Your task to perform on an android device: make emails show in primary in the gmail app Image 0: 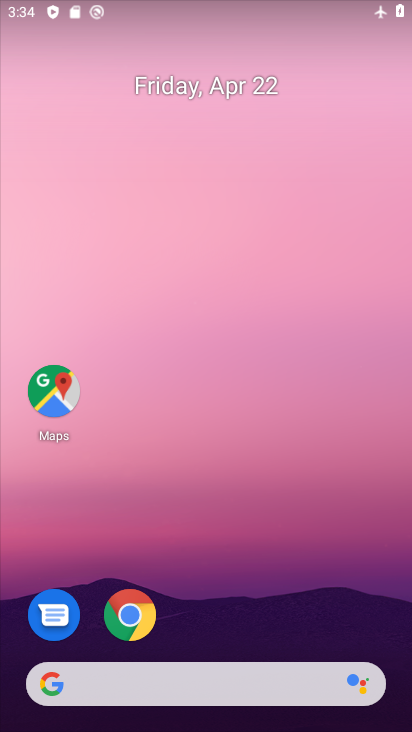
Step 0: drag from (209, 655) to (292, 187)
Your task to perform on an android device: make emails show in primary in the gmail app Image 1: 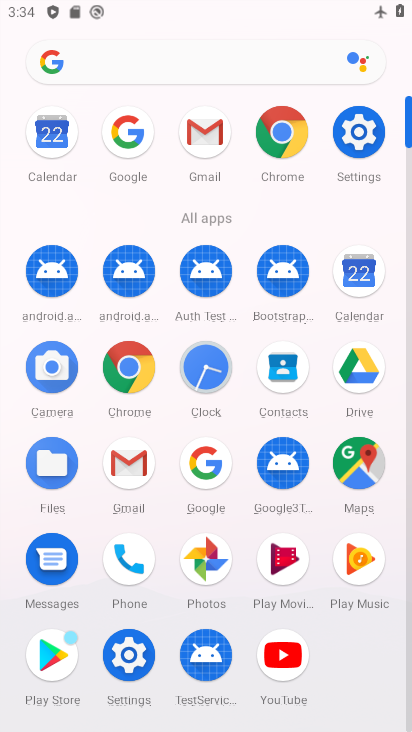
Step 1: click (202, 135)
Your task to perform on an android device: make emails show in primary in the gmail app Image 2: 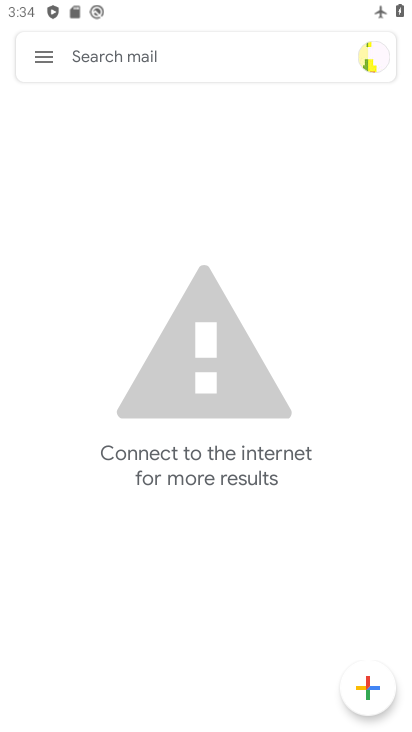
Step 2: click (49, 49)
Your task to perform on an android device: make emails show in primary in the gmail app Image 3: 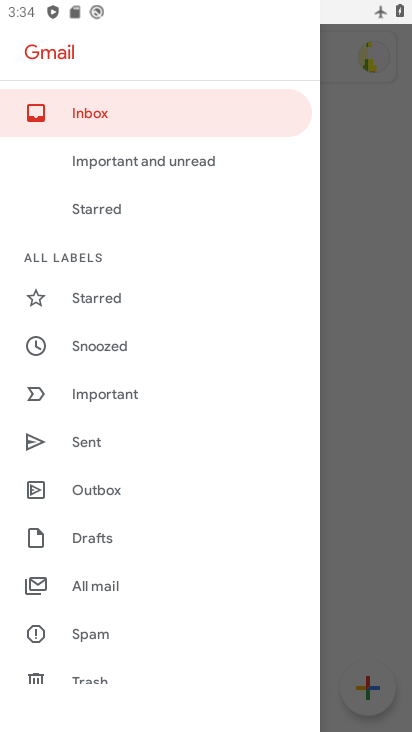
Step 3: drag from (103, 655) to (131, 371)
Your task to perform on an android device: make emails show in primary in the gmail app Image 4: 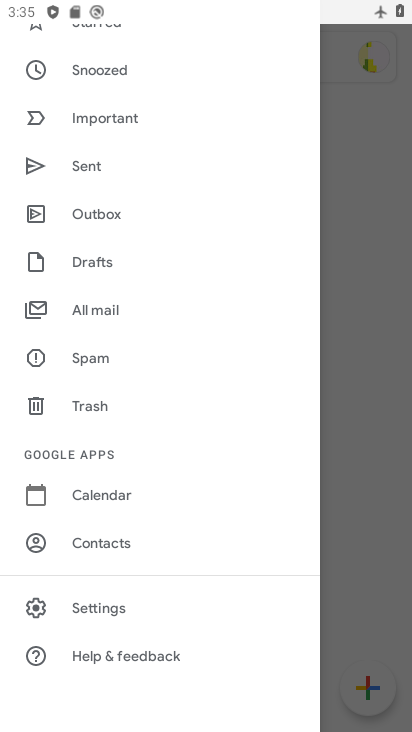
Step 4: click (94, 604)
Your task to perform on an android device: make emails show in primary in the gmail app Image 5: 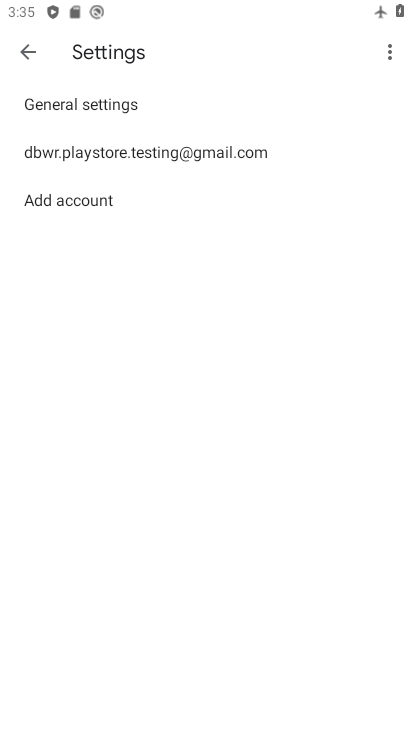
Step 5: click (146, 154)
Your task to perform on an android device: make emails show in primary in the gmail app Image 6: 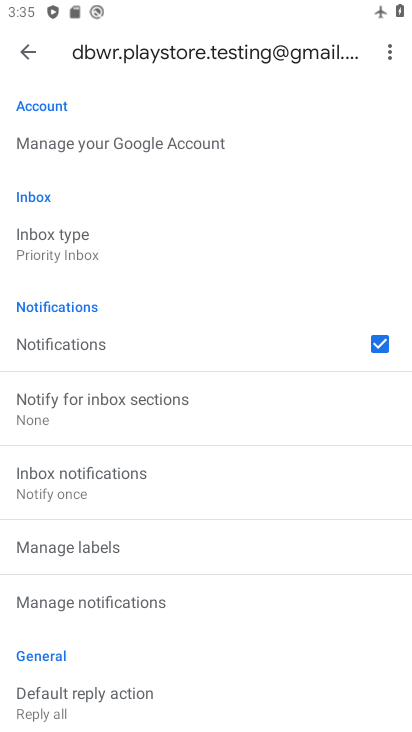
Step 6: click (63, 242)
Your task to perform on an android device: make emails show in primary in the gmail app Image 7: 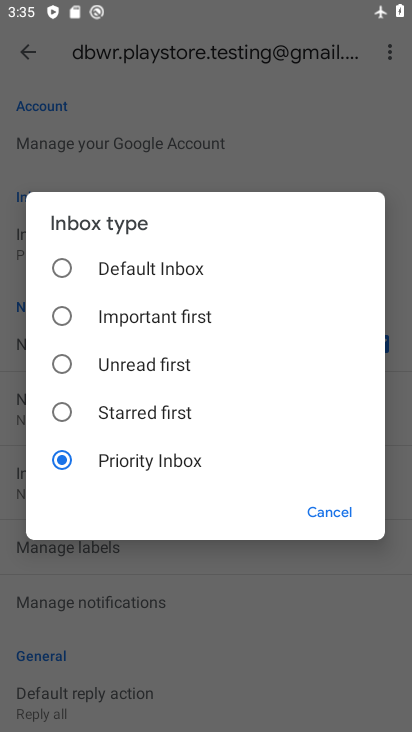
Step 7: click (99, 261)
Your task to perform on an android device: make emails show in primary in the gmail app Image 8: 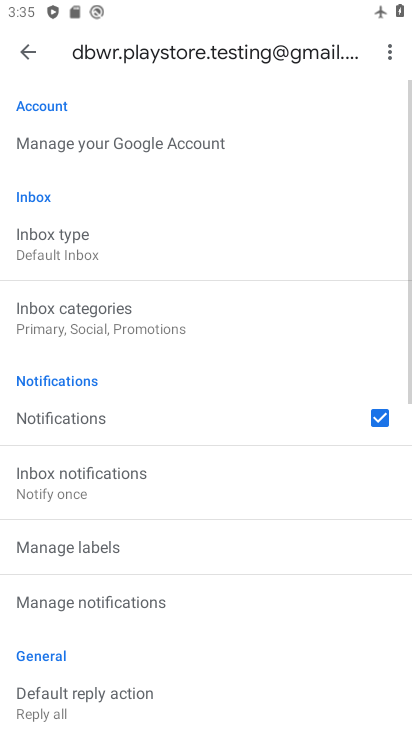
Step 8: click (104, 312)
Your task to perform on an android device: make emails show in primary in the gmail app Image 9: 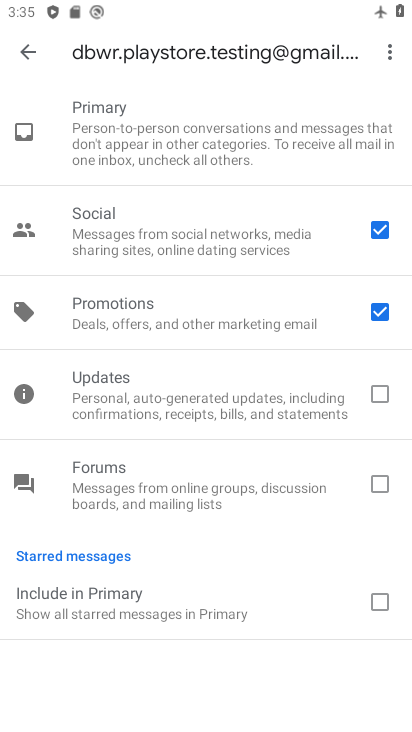
Step 9: click (383, 307)
Your task to perform on an android device: make emails show in primary in the gmail app Image 10: 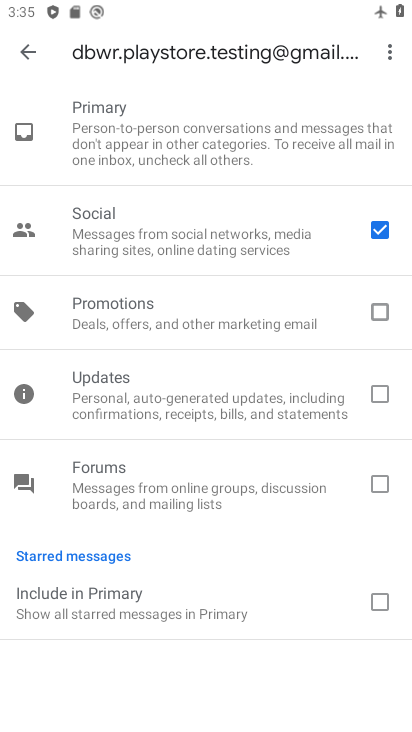
Step 10: click (381, 223)
Your task to perform on an android device: make emails show in primary in the gmail app Image 11: 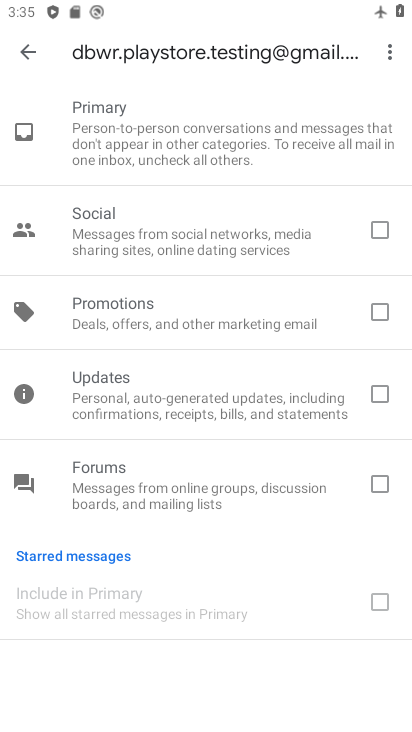
Step 11: click (23, 50)
Your task to perform on an android device: make emails show in primary in the gmail app Image 12: 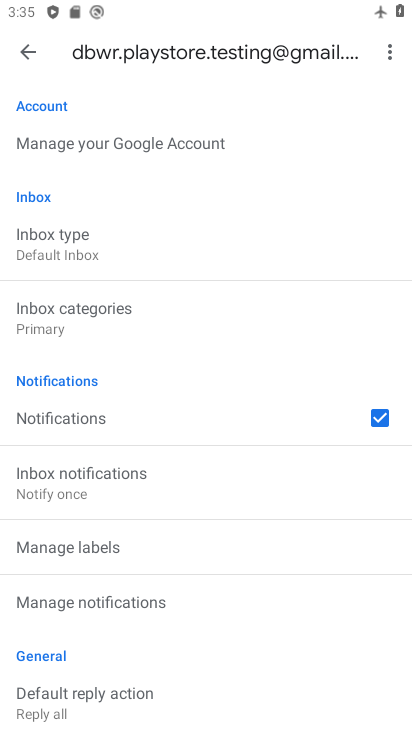
Step 12: task complete